Your task to perform on an android device: set default search engine in the chrome app Image 0: 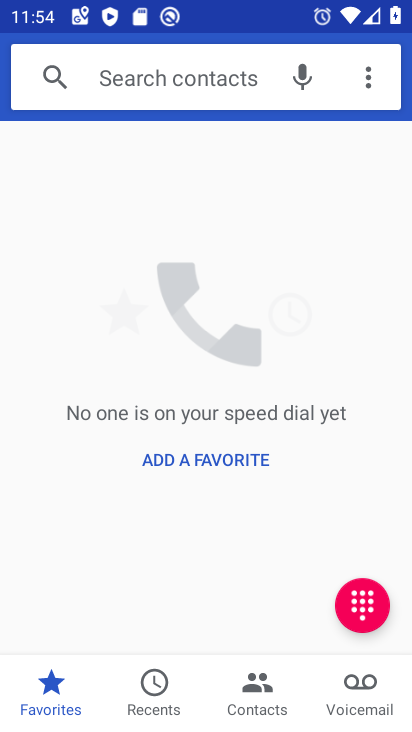
Step 0: press home button
Your task to perform on an android device: set default search engine in the chrome app Image 1: 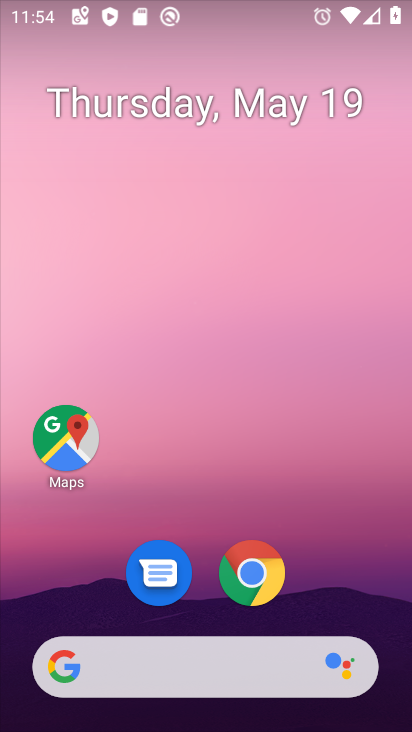
Step 1: click (260, 565)
Your task to perform on an android device: set default search engine in the chrome app Image 2: 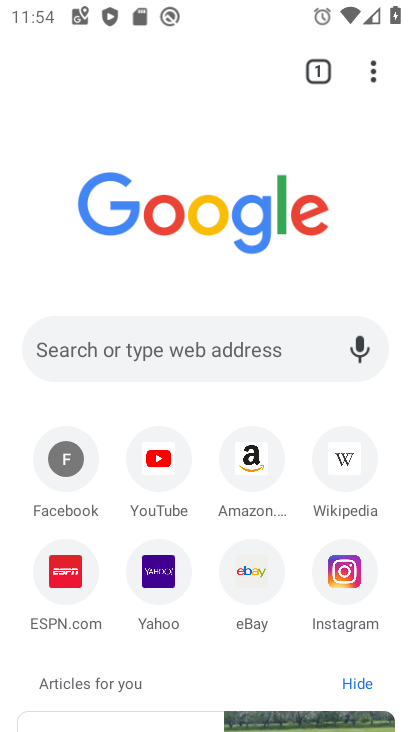
Step 2: click (375, 68)
Your task to perform on an android device: set default search engine in the chrome app Image 3: 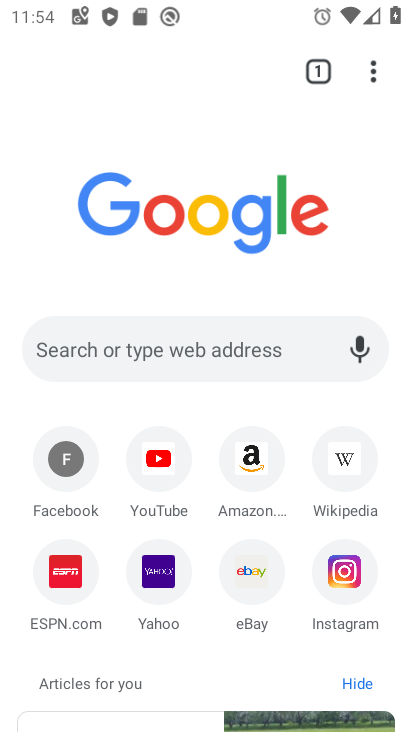
Step 3: click (368, 81)
Your task to perform on an android device: set default search engine in the chrome app Image 4: 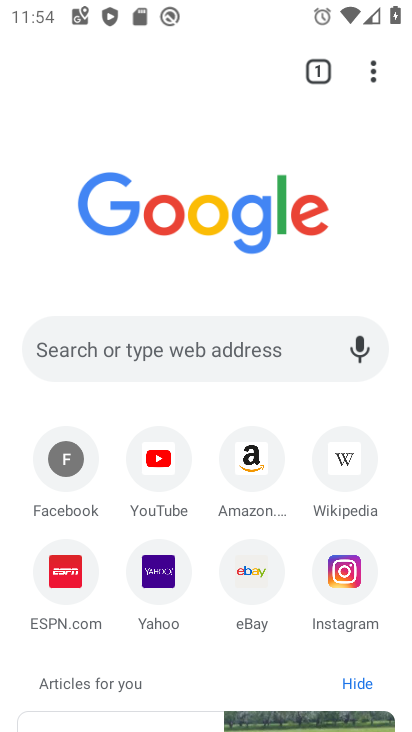
Step 4: click (377, 78)
Your task to perform on an android device: set default search engine in the chrome app Image 5: 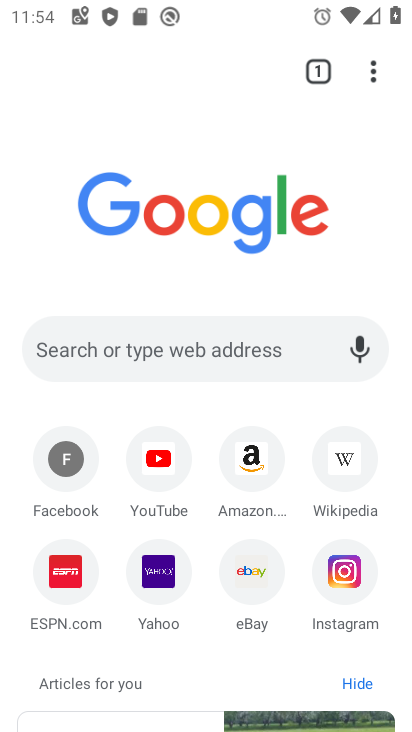
Step 5: click (378, 73)
Your task to perform on an android device: set default search engine in the chrome app Image 6: 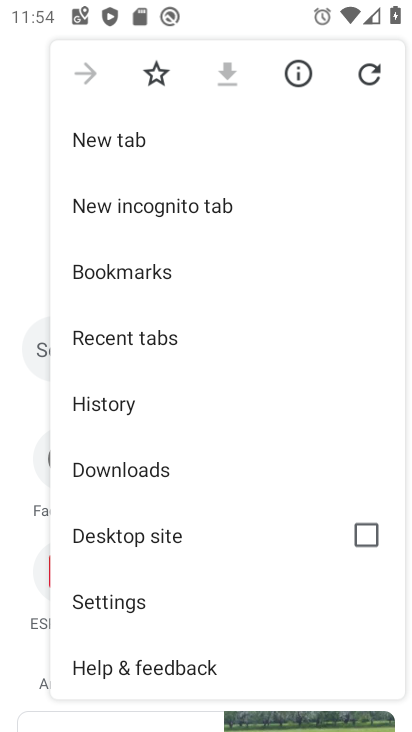
Step 6: click (124, 605)
Your task to perform on an android device: set default search engine in the chrome app Image 7: 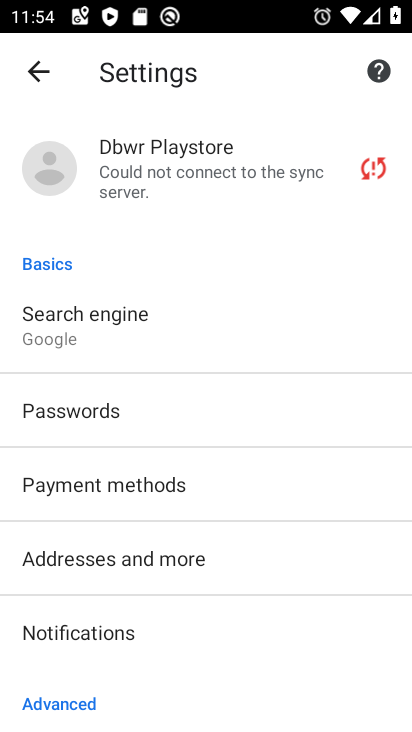
Step 7: drag from (150, 595) to (184, 240)
Your task to perform on an android device: set default search engine in the chrome app Image 8: 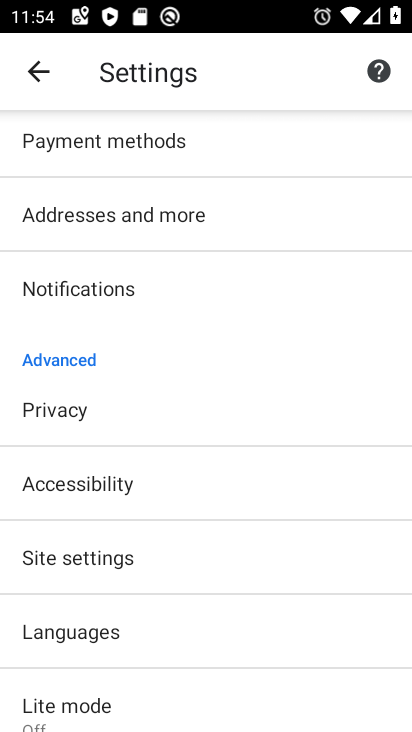
Step 8: drag from (131, 279) to (154, 158)
Your task to perform on an android device: set default search engine in the chrome app Image 9: 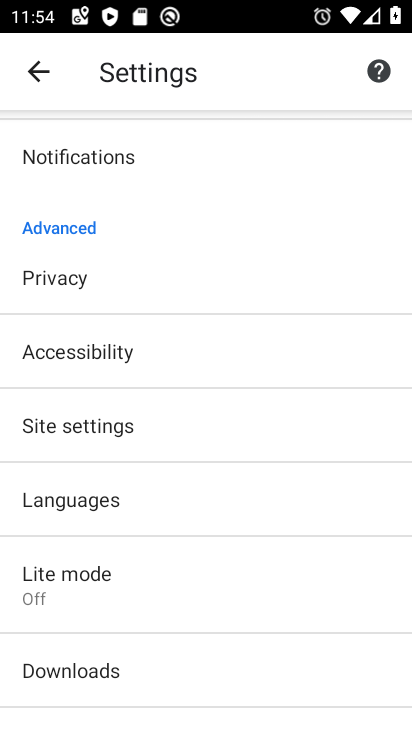
Step 9: drag from (105, 544) to (79, 683)
Your task to perform on an android device: set default search engine in the chrome app Image 10: 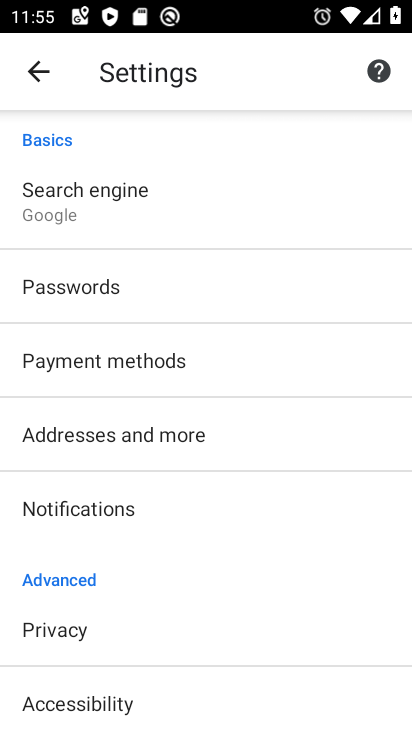
Step 10: click (127, 209)
Your task to perform on an android device: set default search engine in the chrome app Image 11: 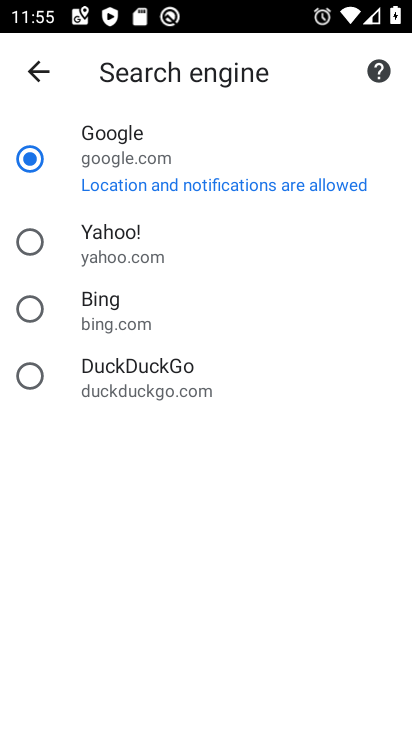
Step 11: click (123, 183)
Your task to perform on an android device: set default search engine in the chrome app Image 12: 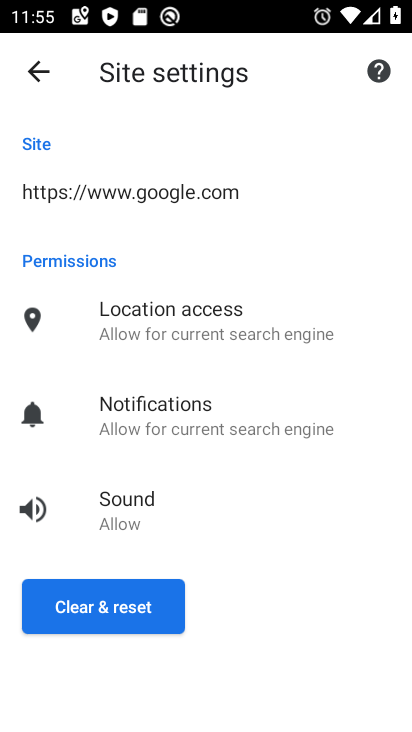
Step 12: click (113, 611)
Your task to perform on an android device: set default search engine in the chrome app Image 13: 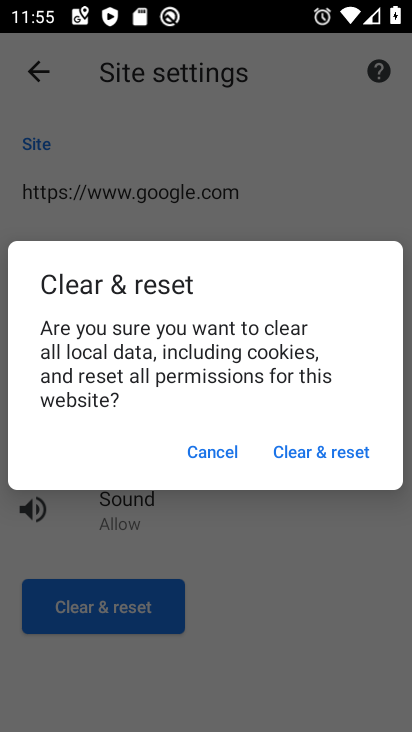
Step 13: click (310, 451)
Your task to perform on an android device: set default search engine in the chrome app Image 14: 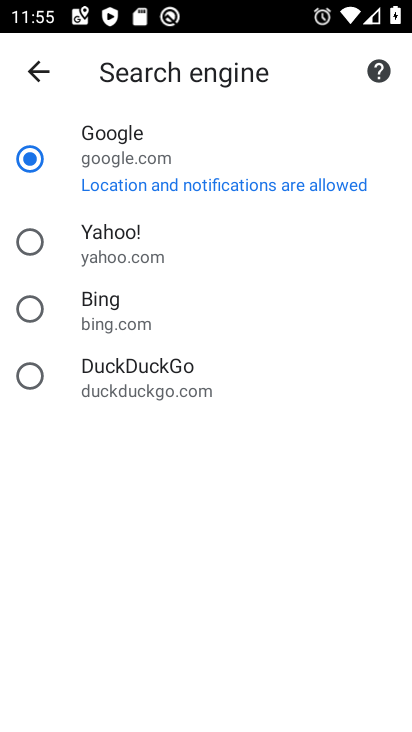
Step 14: task complete